Your task to perform on an android device: move an email to a new category in the gmail app Image 0: 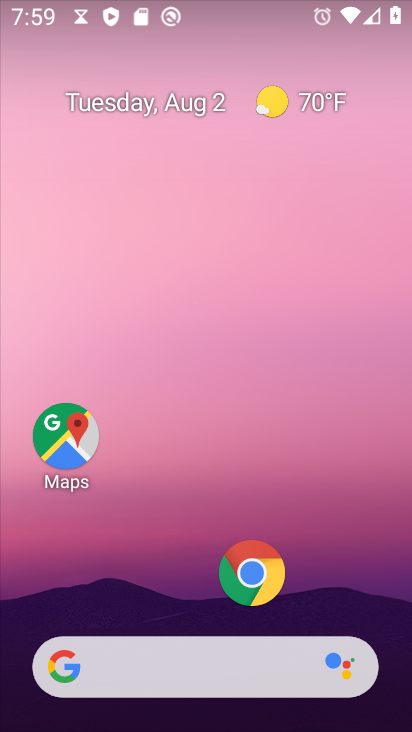
Step 0: press home button
Your task to perform on an android device: move an email to a new category in the gmail app Image 1: 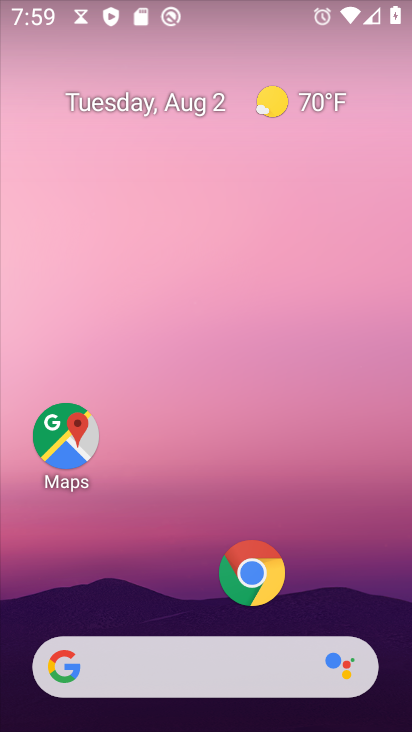
Step 1: drag from (197, 606) to (185, 94)
Your task to perform on an android device: move an email to a new category in the gmail app Image 2: 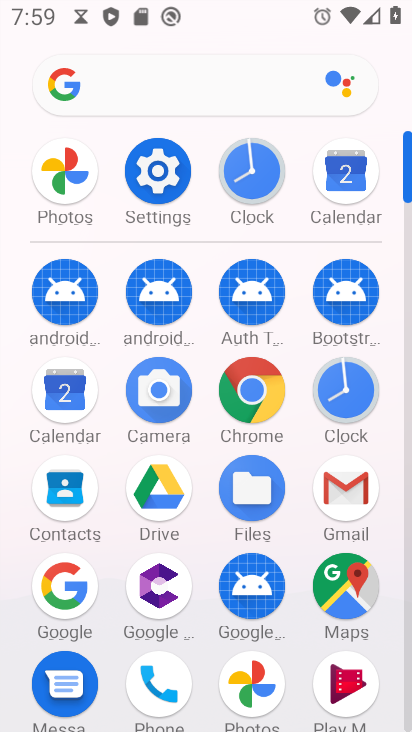
Step 2: click (342, 480)
Your task to perform on an android device: move an email to a new category in the gmail app Image 3: 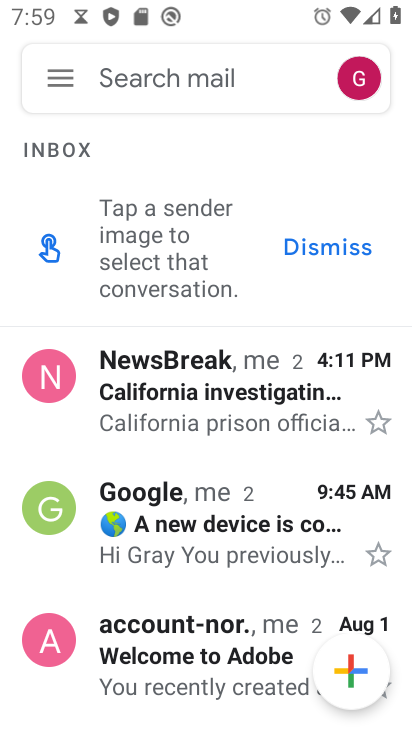
Step 3: drag from (204, 550) to (231, 84)
Your task to perform on an android device: move an email to a new category in the gmail app Image 4: 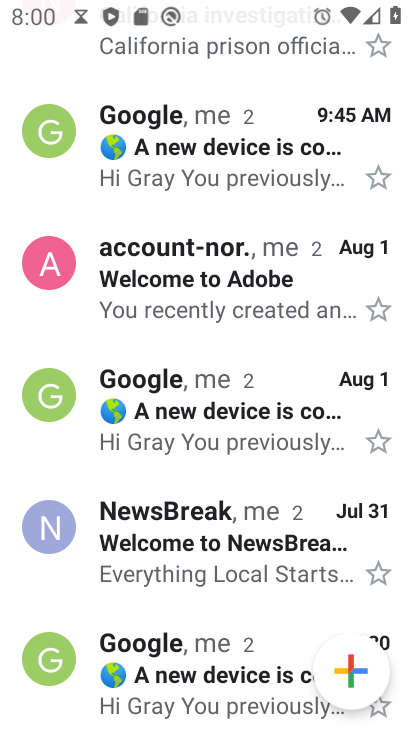
Step 4: drag from (192, 199) to (214, 678)
Your task to perform on an android device: move an email to a new category in the gmail app Image 5: 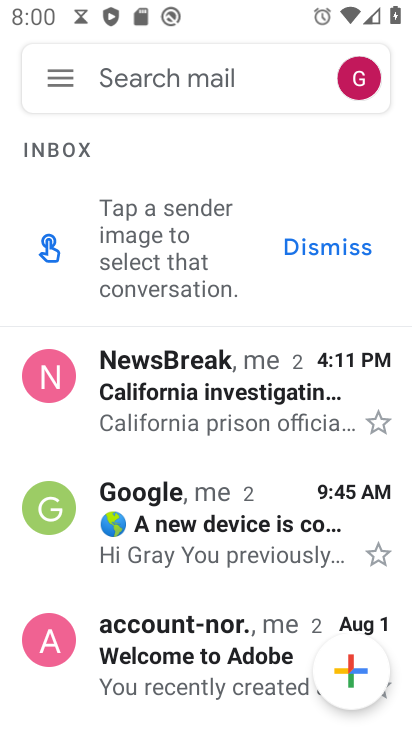
Step 5: click (55, 370)
Your task to perform on an android device: move an email to a new category in the gmail app Image 6: 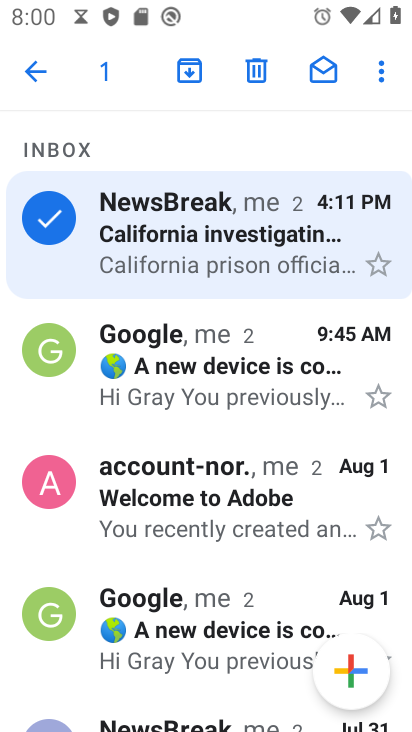
Step 6: click (385, 65)
Your task to perform on an android device: move an email to a new category in the gmail app Image 7: 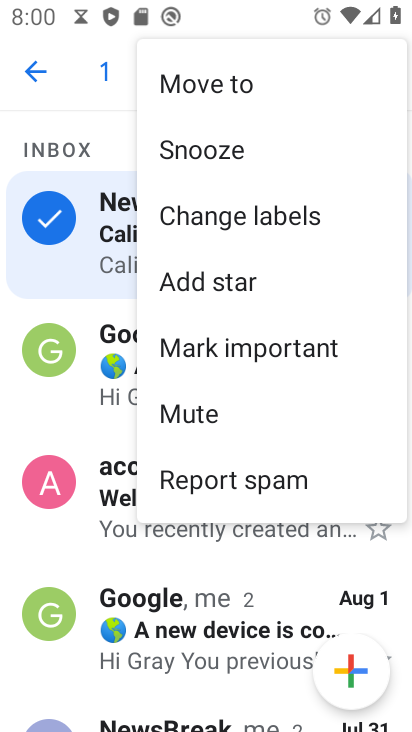
Step 7: click (252, 80)
Your task to perform on an android device: move an email to a new category in the gmail app Image 8: 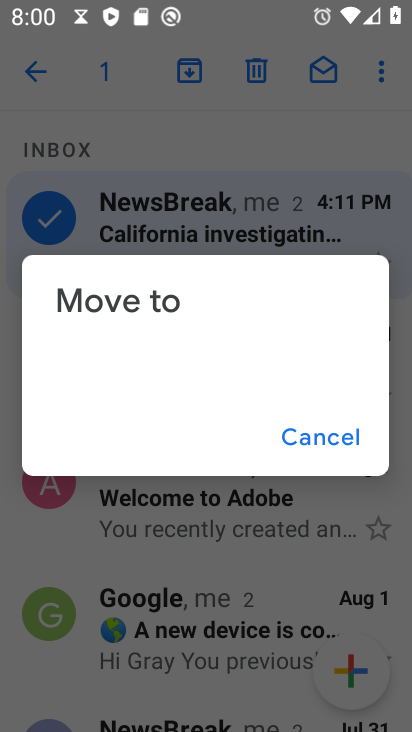
Step 8: task complete